Your task to perform on an android device: Go to Amazon Image 0: 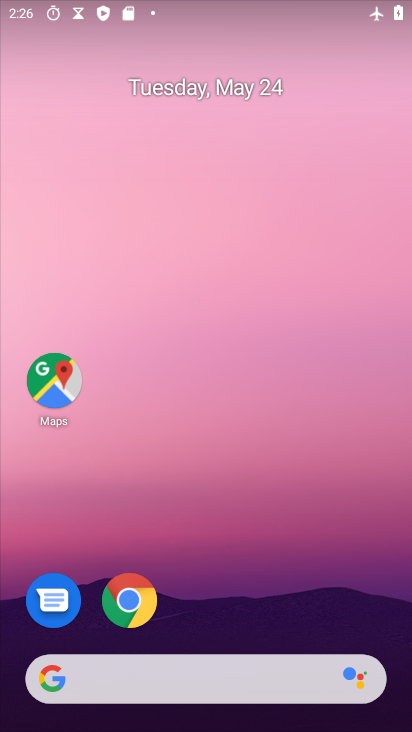
Step 0: click (125, 599)
Your task to perform on an android device: Go to Amazon Image 1: 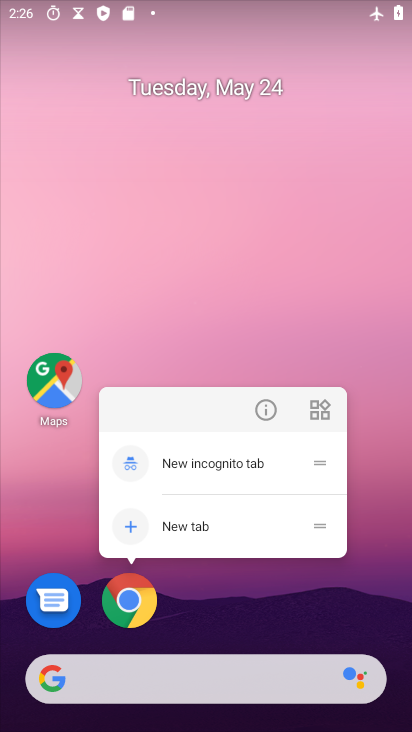
Step 1: click (135, 601)
Your task to perform on an android device: Go to Amazon Image 2: 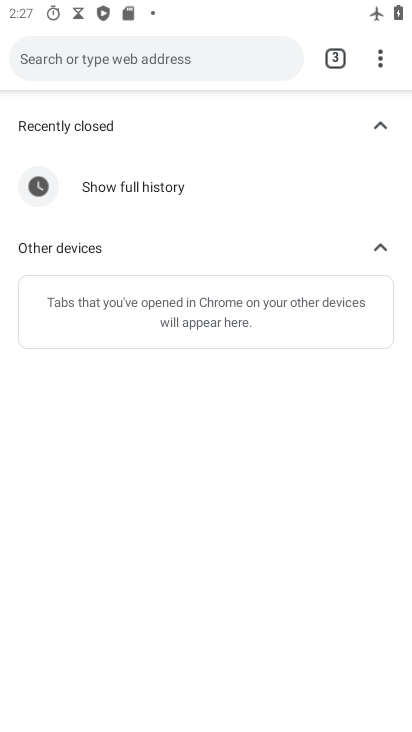
Step 2: click (338, 54)
Your task to perform on an android device: Go to Amazon Image 3: 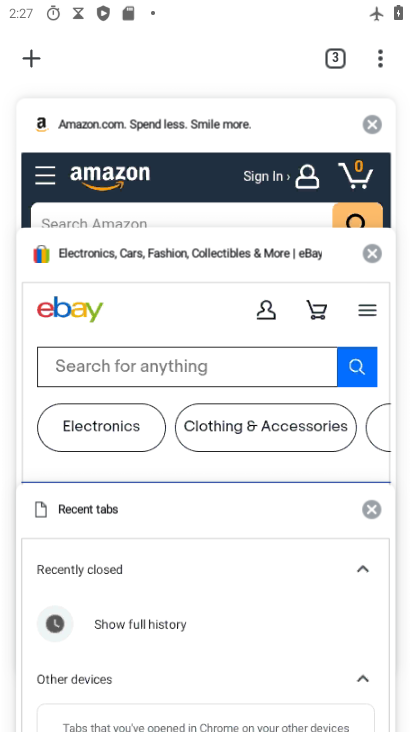
Step 3: click (30, 62)
Your task to perform on an android device: Go to Amazon Image 4: 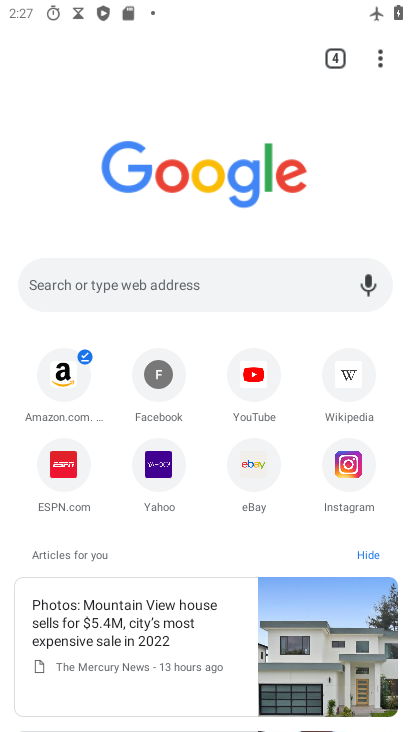
Step 4: click (62, 374)
Your task to perform on an android device: Go to Amazon Image 5: 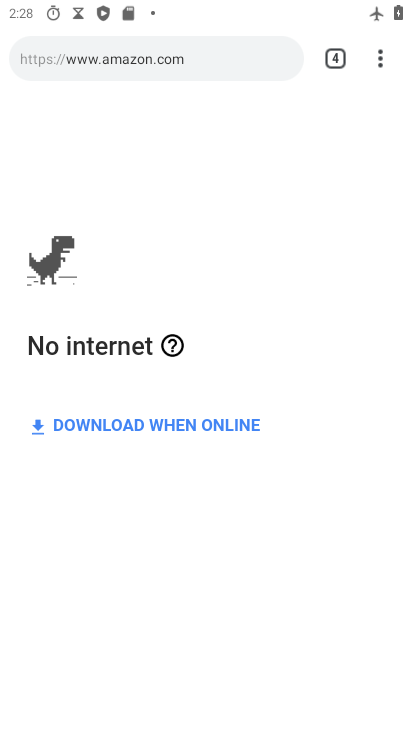
Step 5: task complete